Your task to perform on an android device: Open the Play Movies app and select the watchlist tab. Image 0: 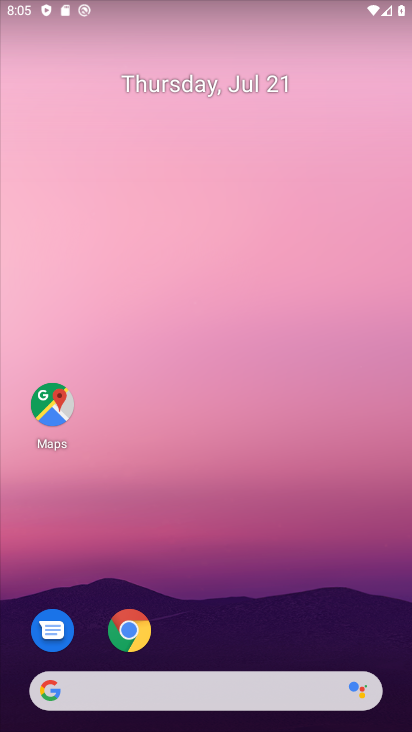
Step 0: drag from (252, 615) to (193, 195)
Your task to perform on an android device: Open the Play Movies app and select the watchlist tab. Image 1: 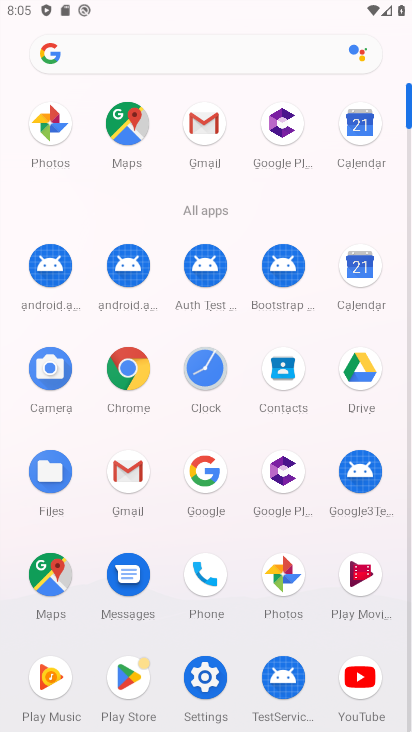
Step 1: click (365, 565)
Your task to perform on an android device: Open the Play Movies app and select the watchlist tab. Image 2: 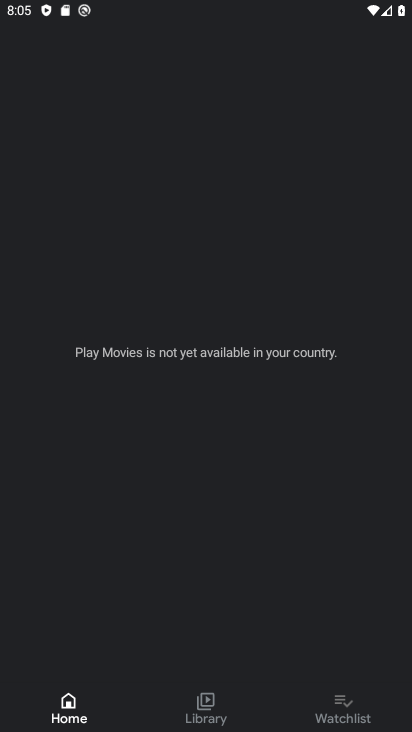
Step 2: click (321, 703)
Your task to perform on an android device: Open the Play Movies app and select the watchlist tab. Image 3: 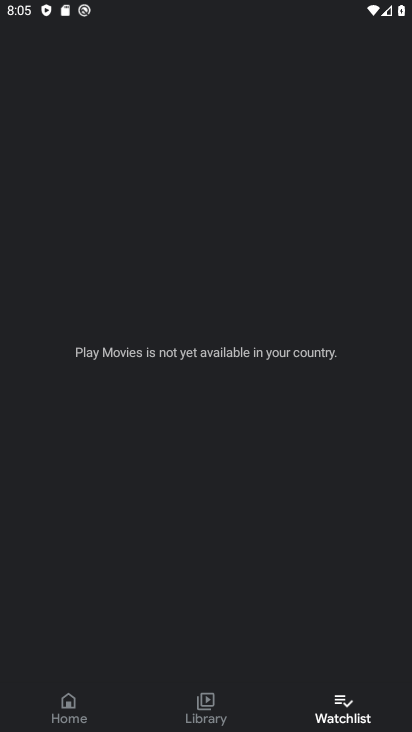
Step 3: task complete